Your task to perform on an android device: remove spam from my inbox in the gmail app Image 0: 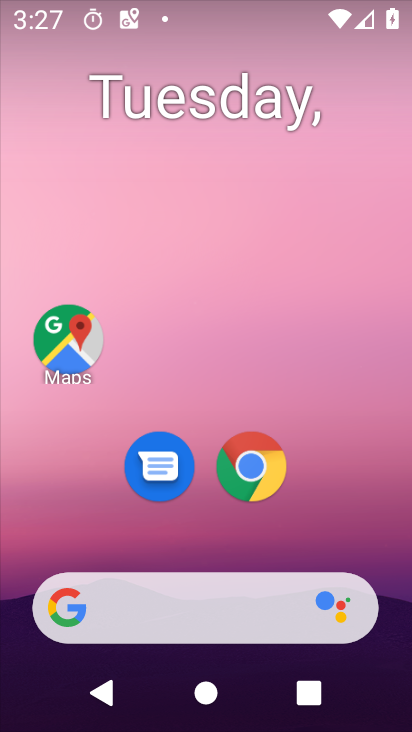
Step 0: drag from (387, 543) to (353, 151)
Your task to perform on an android device: remove spam from my inbox in the gmail app Image 1: 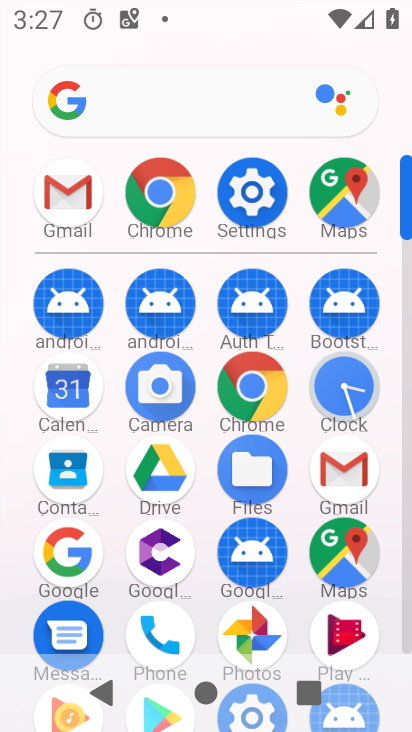
Step 1: click (354, 482)
Your task to perform on an android device: remove spam from my inbox in the gmail app Image 2: 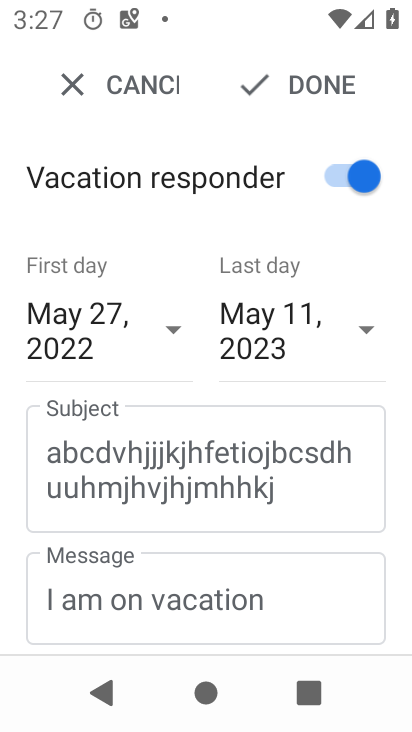
Step 2: press back button
Your task to perform on an android device: remove spam from my inbox in the gmail app Image 3: 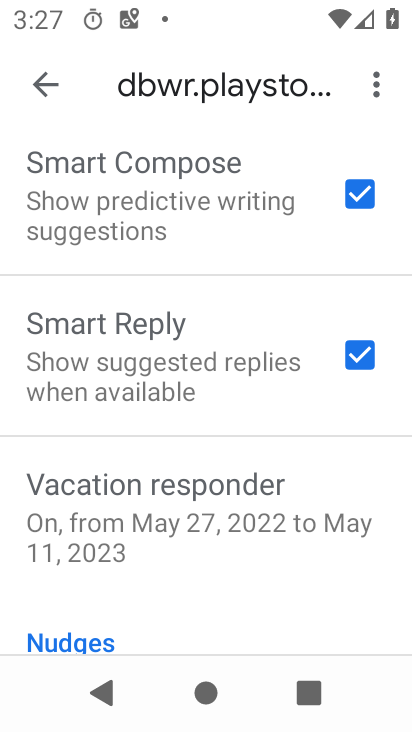
Step 3: click (42, 80)
Your task to perform on an android device: remove spam from my inbox in the gmail app Image 4: 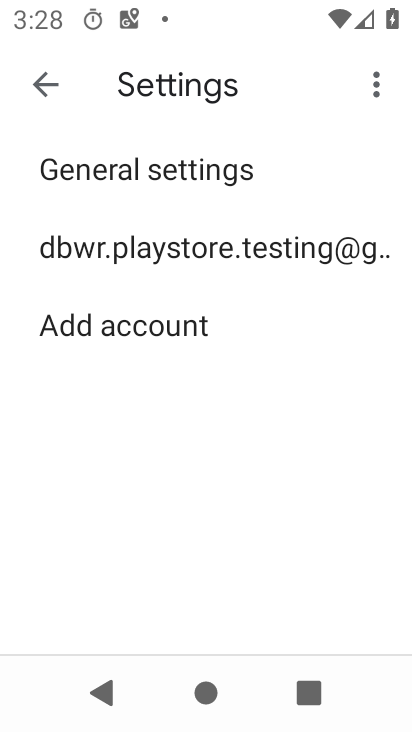
Step 4: click (50, 82)
Your task to perform on an android device: remove spam from my inbox in the gmail app Image 5: 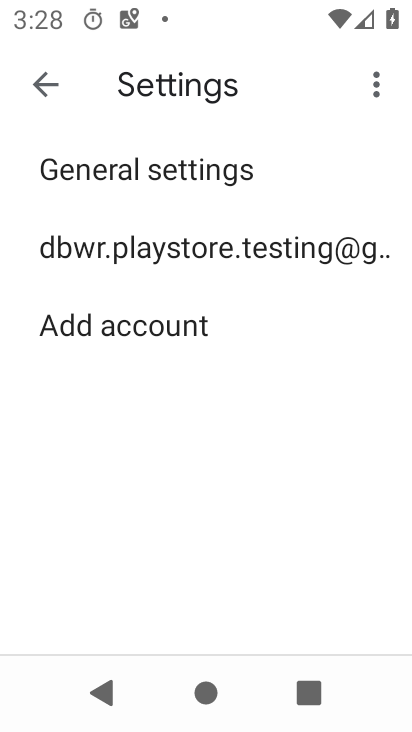
Step 5: click (50, 103)
Your task to perform on an android device: remove spam from my inbox in the gmail app Image 6: 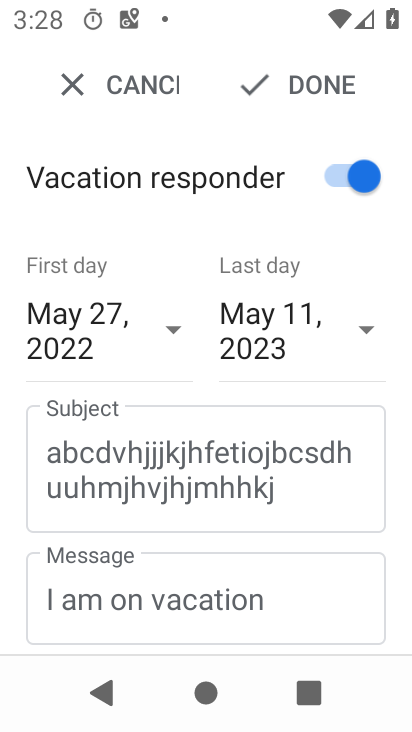
Step 6: click (73, 90)
Your task to perform on an android device: remove spam from my inbox in the gmail app Image 7: 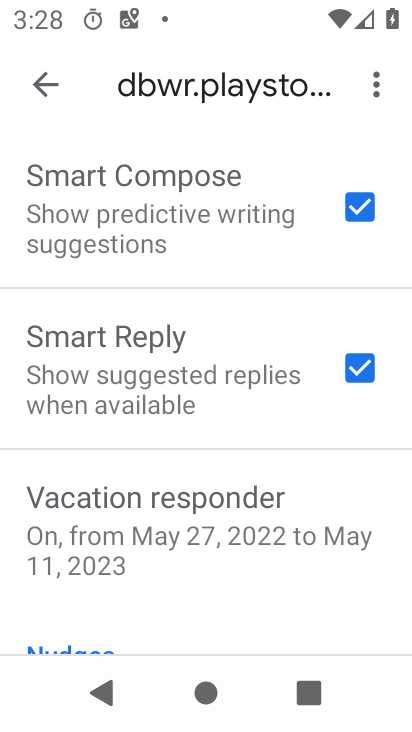
Step 7: click (47, 93)
Your task to perform on an android device: remove spam from my inbox in the gmail app Image 8: 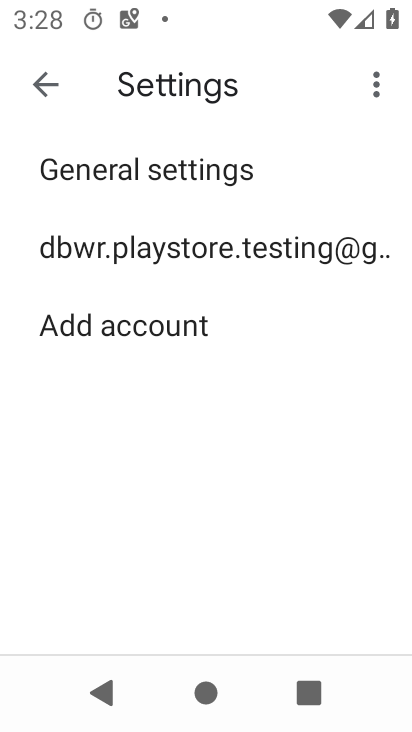
Step 8: click (47, 83)
Your task to perform on an android device: remove spam from my inbox in the gmail app Image 9: 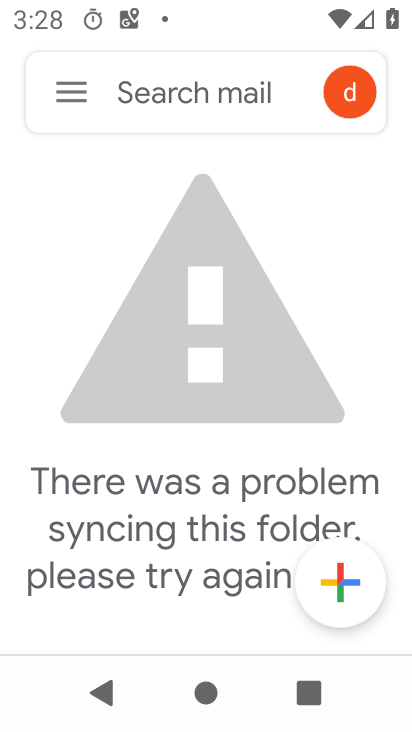
Step 9: click (59, 97)
Your task to perform on an android device: remove spam from my inbox in the gmail app Image 10: 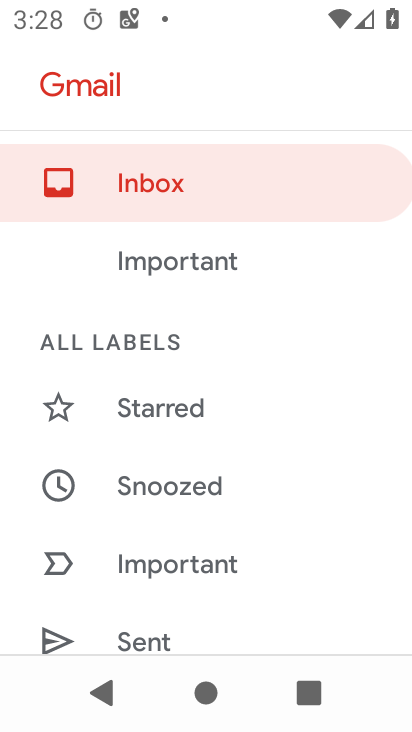
Step 10: drag from (306, 442) to (308, 296)
Your task to perform on an android device: remove spam from my inbox in the gmail app Image 11: 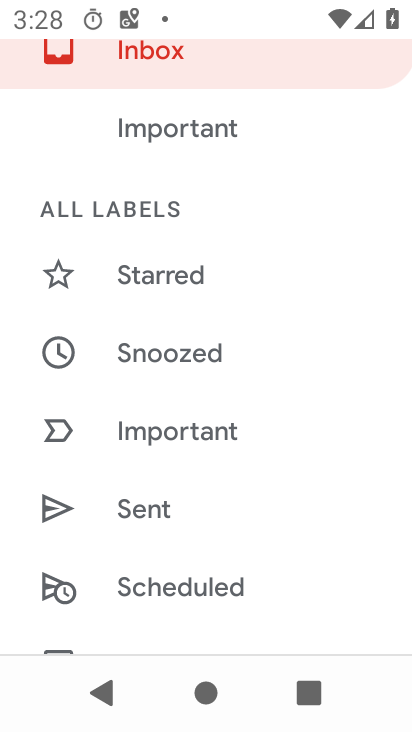
Step 11: drag from (317, 508) to (299, 331)
Your task to perform on an android device: remove spam from my inbox in the gmail app Image 12: 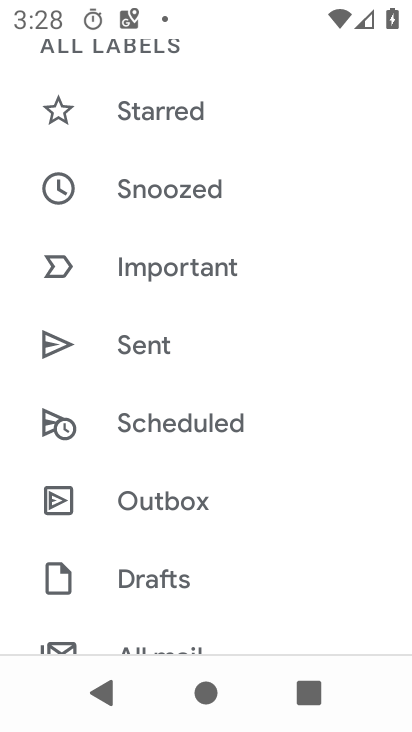
Step 12: drag from (319, 521) to (311, 314)
Your task to perform on an android device: remove spam from my inbox in the gmail app Image 13: 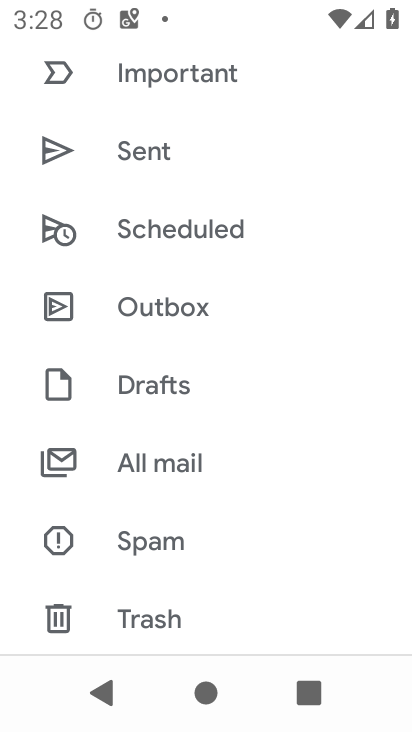
Step 13: click (180, 536)
Your task to perform on an android device: remove spam from my inbox in the gmail app Image 14: 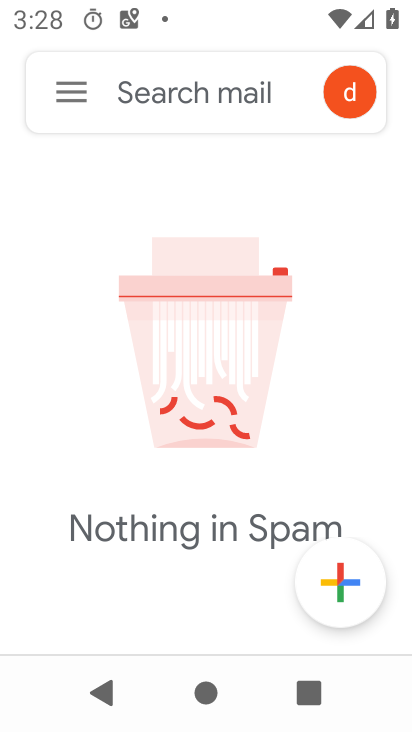
Step 14: task complete